Your task to perform on an android device: Open CNN.com Image 0: 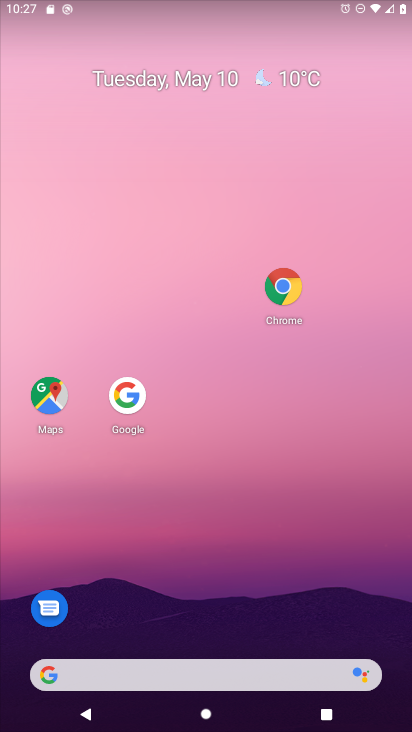
Step 0: drag from (139, 677) to (285, 179)
Your task to perform on an android device: Open CNN.com Image 1: 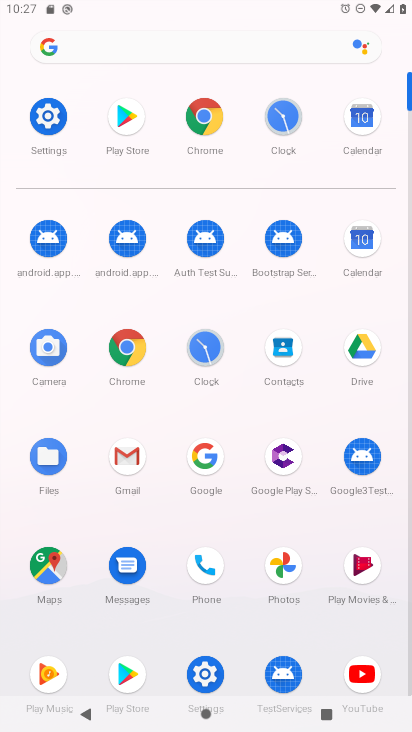
Step 1: click (208, 125)
Your task to perform on an android device: Open CNN.com Image 2: 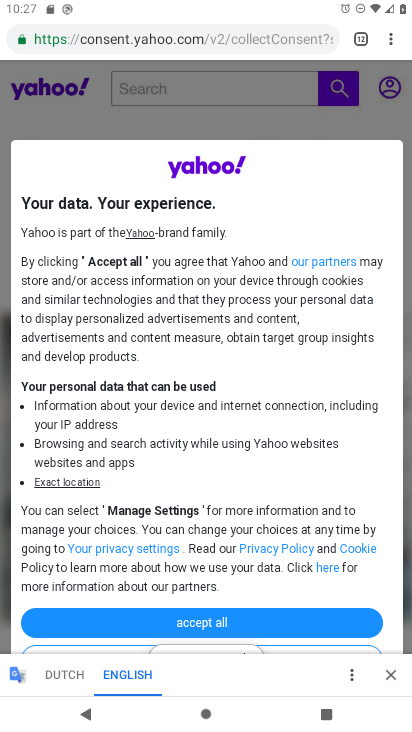
Step 2: drag from (390, 41) to (309, 81)
Your task to perform on an android device: Open CNN.com Image 3: 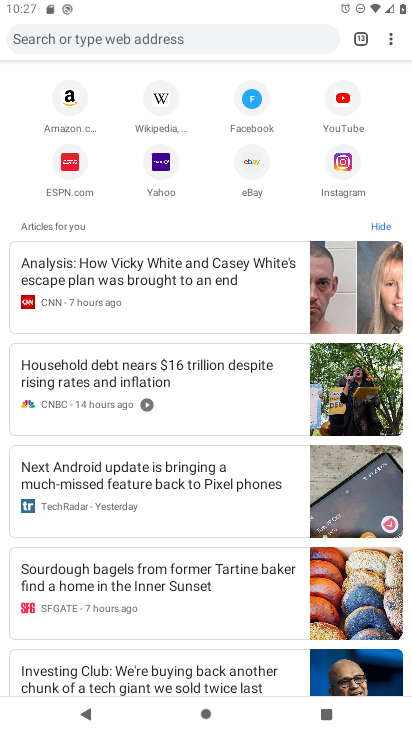
Step 3: click (79, 39)
Your task to perform on an android device: Open CNN.com Image 4: 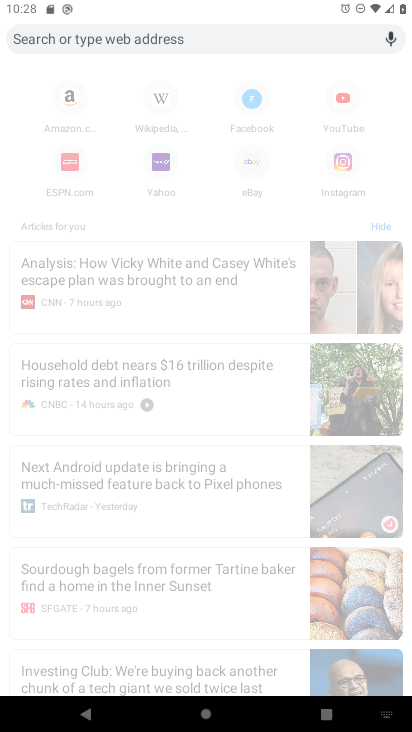
Step 4: type "cnn.com"
Your task to perform on an android device: Open CNN.com Image 5: 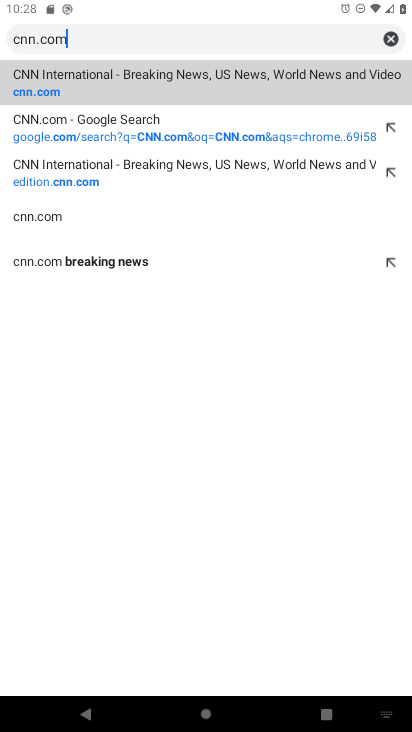
Step 5: click (215, 75)
Your task to perform on an android device: Open CNN.com Image 6: 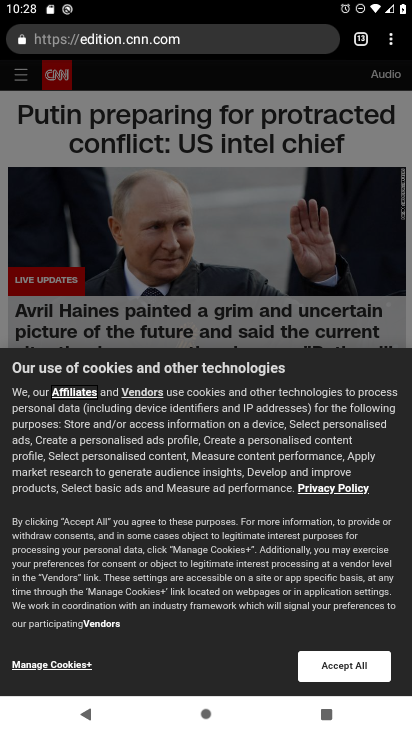
Step 6: task complete